Your task to perform on an android device: turn pop-ups on in chrome Image 0: 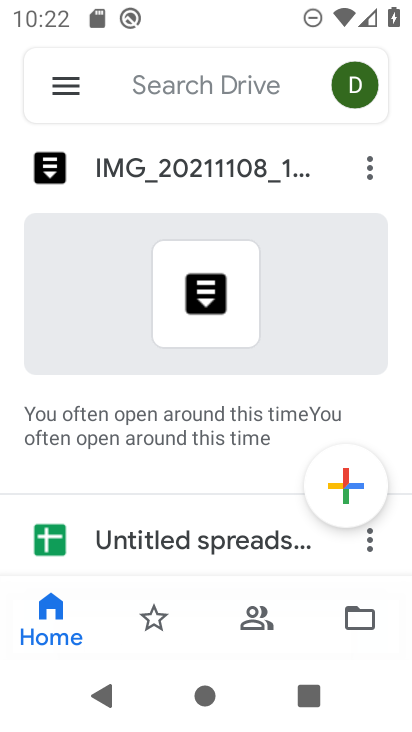
Step 0: press home button
Your task to perform on an android device: turn pop-ups on in chrome Image 1: 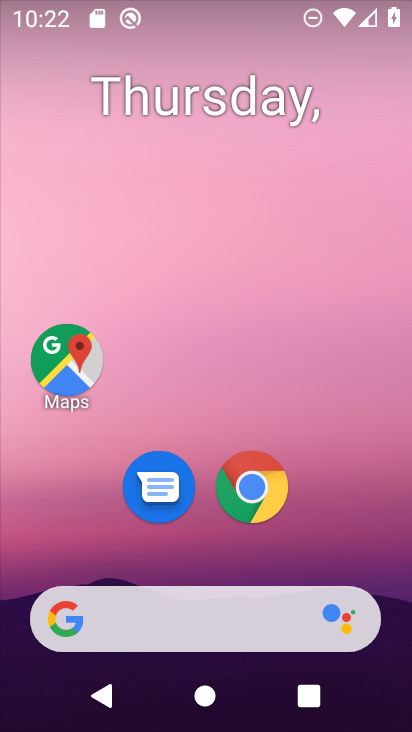
Step 1: click (267, 487)
Your task to perform on an android device: turn pop-ups on in chrome Image 2: 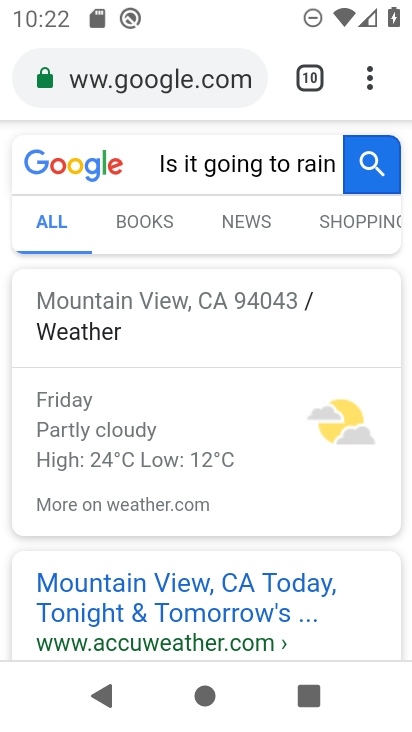
Step 2: click (371, 81)
Your task to perform on an android device: turn pop-ups on in chrome Image 3: 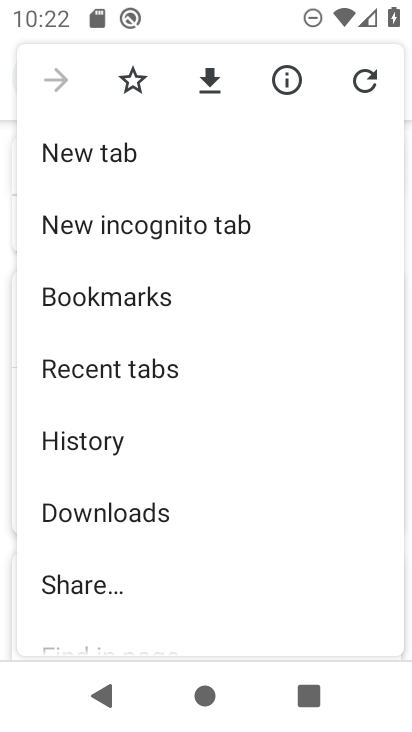
Step 3: drag from (111, 590) to (135, 238)
Your task to perform on an android device: turn pop-ups on in chrome Image 4: 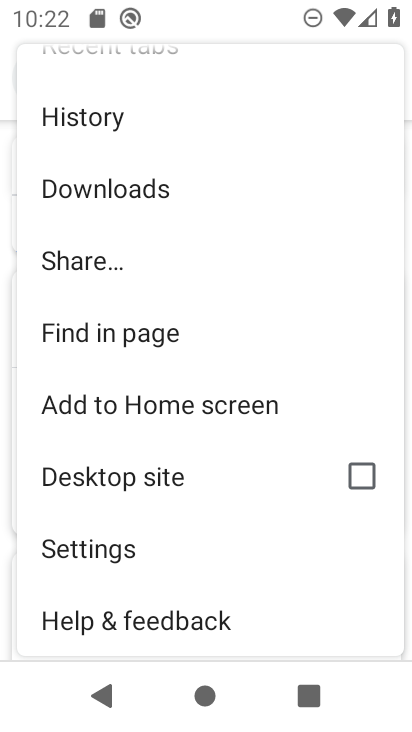
Step 4: click (122, 550)
Your task to perform on an android device: turn pop-ups on in chrome Image 5: 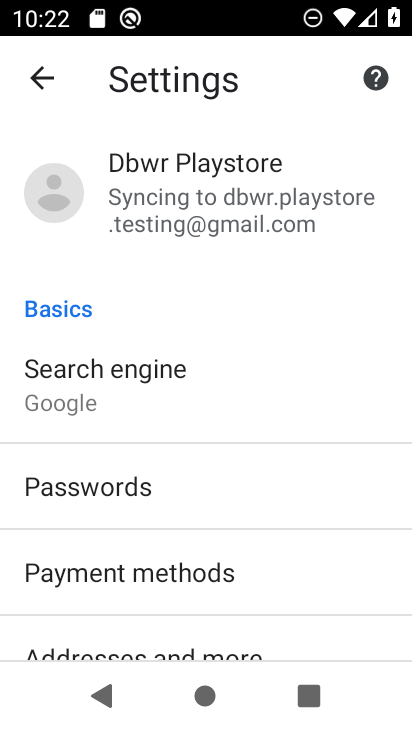
Step 5: drag from (192, 609) to (207, 264)
Your task to perform on an android device: turn pop-ups on in chrome Image 6: 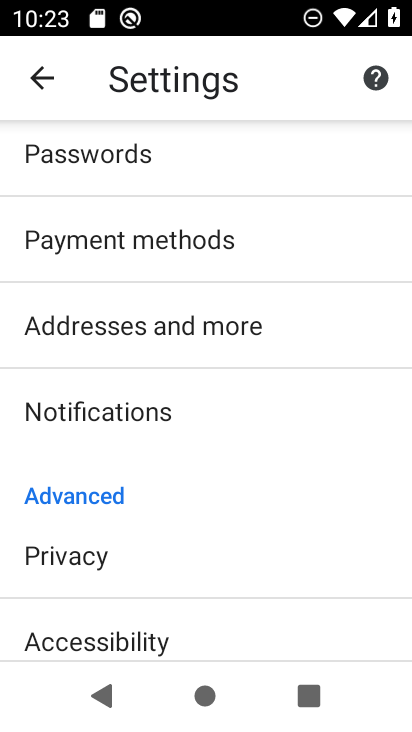
Step 6: drag from (197, 544) to (178, 230)
Your task to perform on an android device: turn pop-ups on in chrome Image 7: 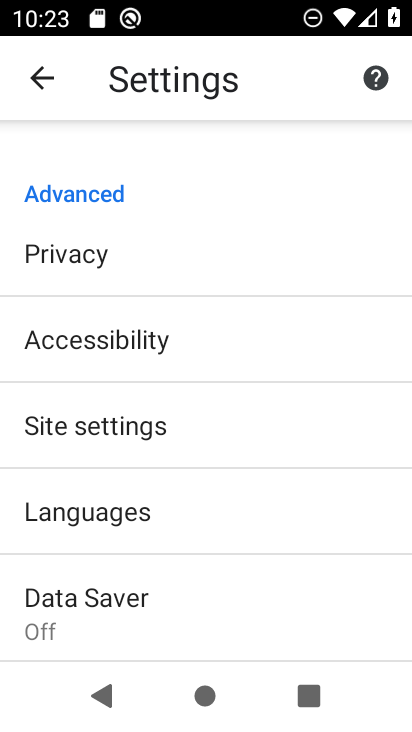
Step 7: click (132, 428)
Your task to perform on an android device: turn pop-ups on in chrome Image 8: 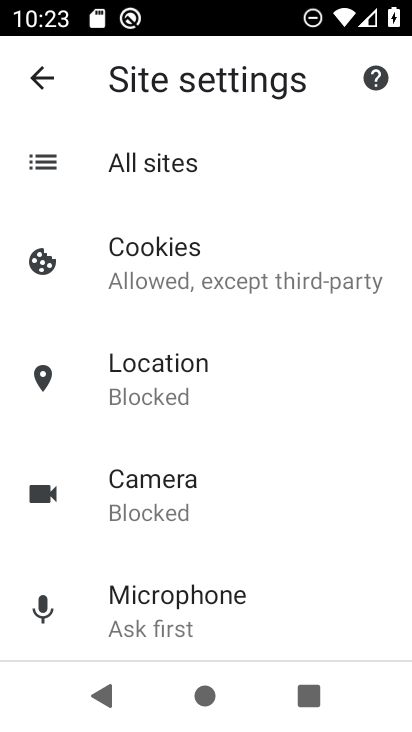
Step 8: drag from (196, 563) to (230, 216)
Your task to perform on an android device: turn pop-ups on in chrome Image 9: 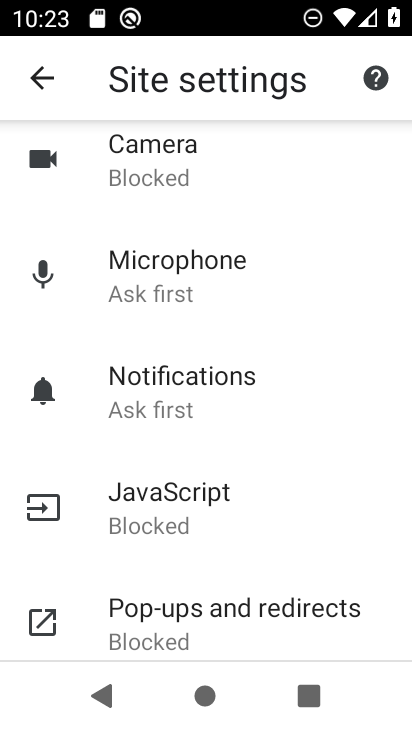
Step 9: click (202, 620)
Your task to perform on an android device: turn pop-ups on in chrome Image 10: 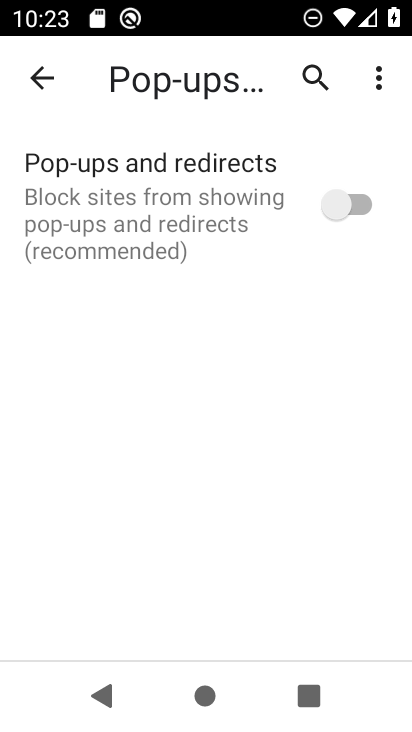
Step 10: click (343, 206)
Your task to perform on an android device: turn pop-ups on in chrome Image 11: 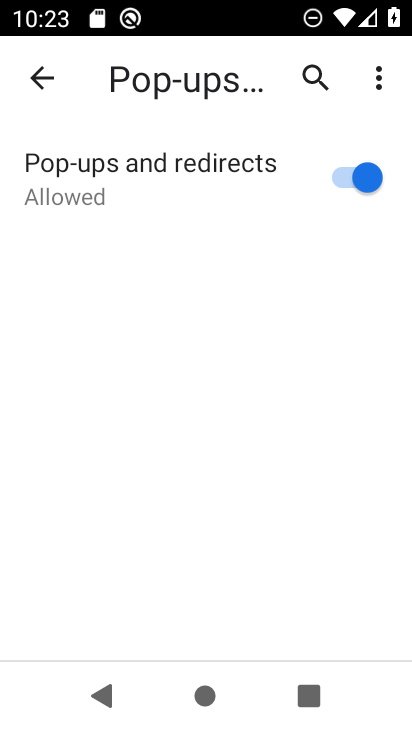
Step 11: task complete